Your task to perform on an android device: turn on priority inbox in the gmail app Image 0: 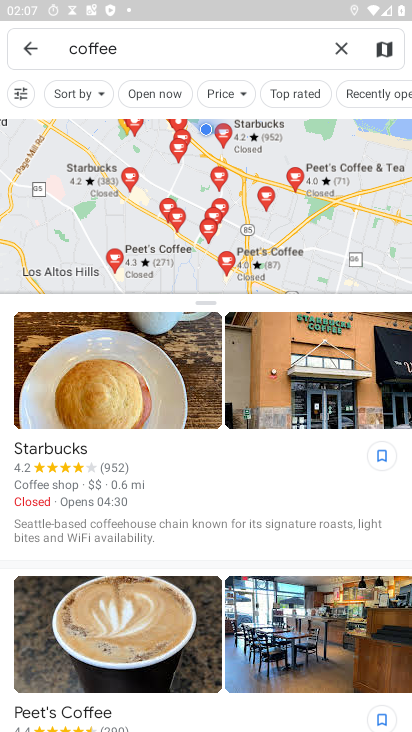
Step 0: press home button
Your task to perform on an android device: turn on priority inbox in the gmail app Image 1: 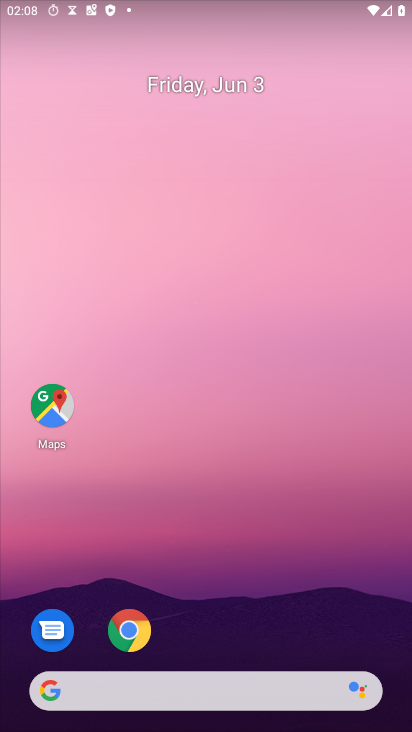
Step 1: drag from (222, 648) to (188, 270)
Your task to perform on an android device: turn on priority inbox in the gmail app Image 2: 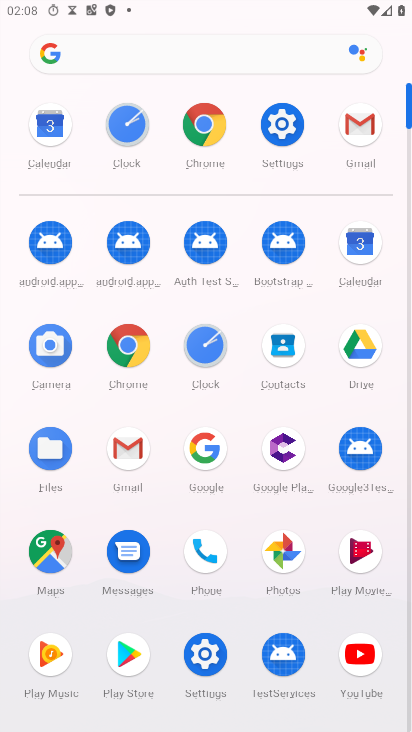
Step 2: click (357, 138)
Your task to perform on an android device: turn on priority inbox in the gmail app Image 3: 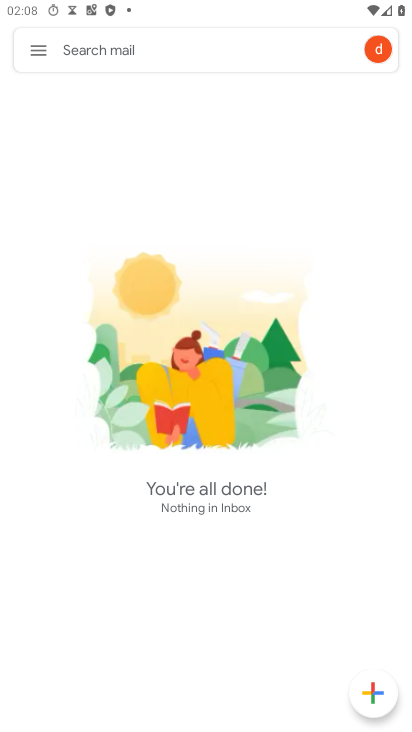
Step 3: click (42, 54)
Your task to perform on an android device: turn on priority inbox in the gmail app Image 4: 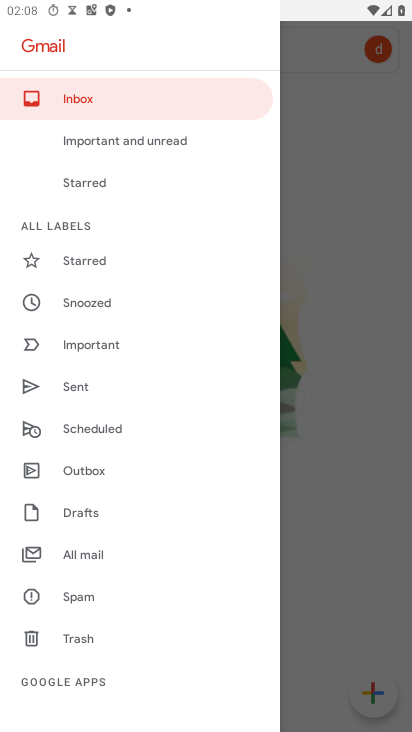
Step 4: drag from (123, 654) to (93, 305)
Your task to perform on an android device: turn on priority inbox in the gmail app Image 5: 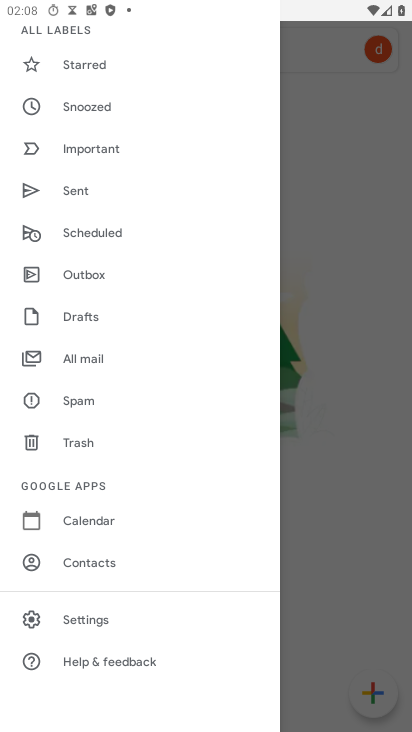
Step 5: click (95, 619)
Your task to perform on an android device: turn on priority inbox in the gmail app Image 6: 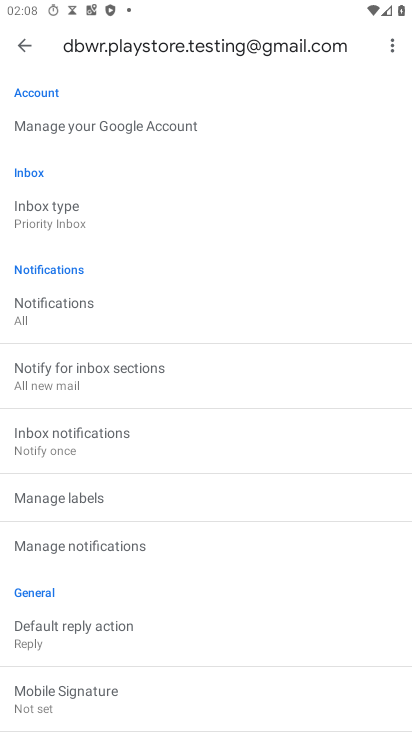
Step 6: task complete